Your task to perform on an android device: visit the assistant section in the google photos Image 0: 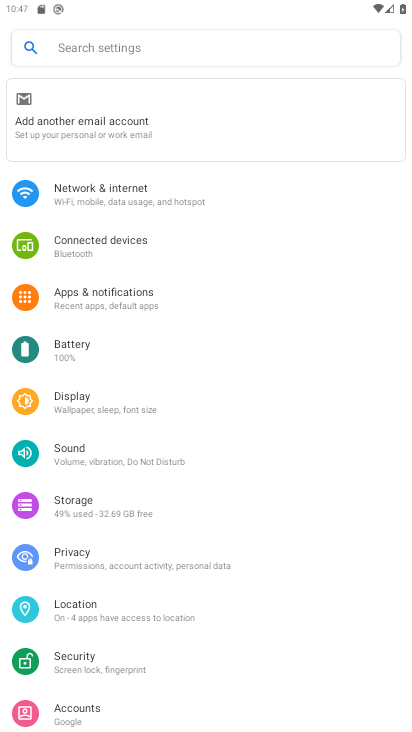
Step 0: press home button
Your task to perform on an android device: visit the assistant section in the google photos Image 1: 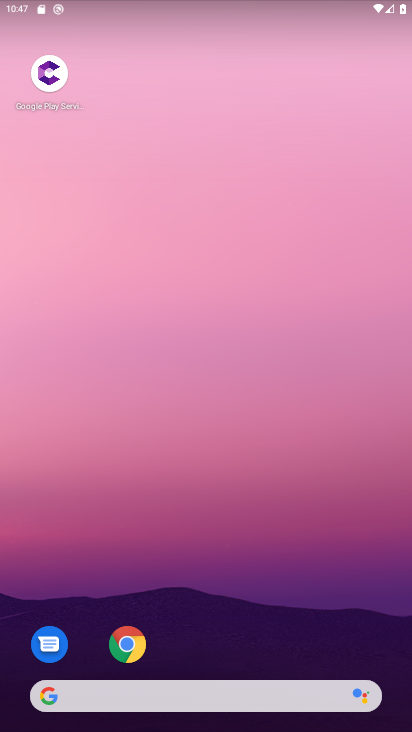
Step 1: drag from (263, 599) to (265, 86)
Your task to perform on an android device: visit the assistant section in the google photos Image 2: 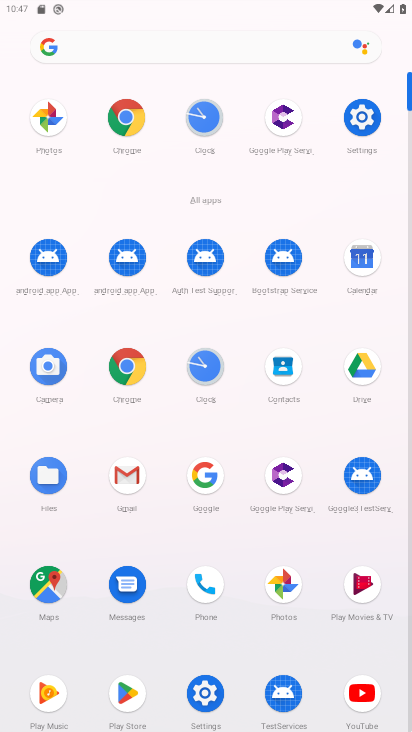
Step 2: click (294, 581)
Your task to perform on an android device: visit the assistant section in the google photos Image 3: 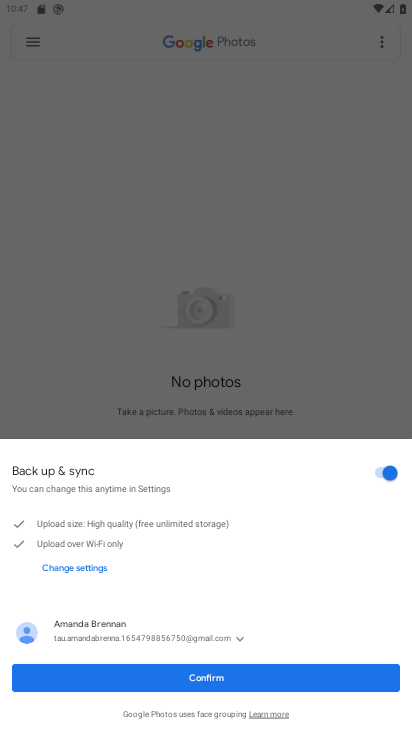
Step 3: click (247, 671)
Your task to perform on an android device: visit the assistant section in the google photos Image 4: 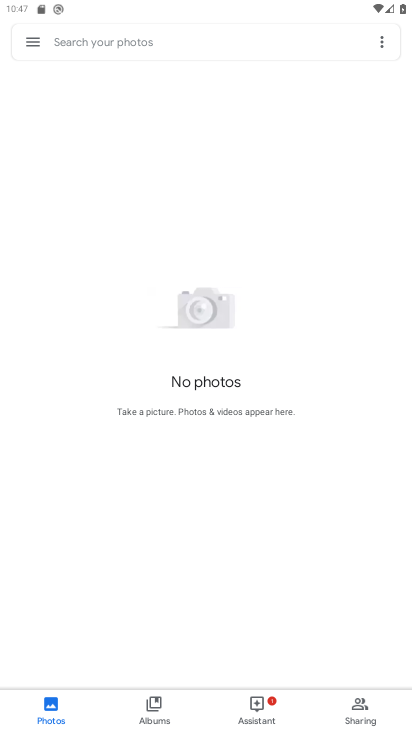
Step 4: click (241, 706)
Your task to perform on an android device: visit the assistant section in the google photos Image 5: 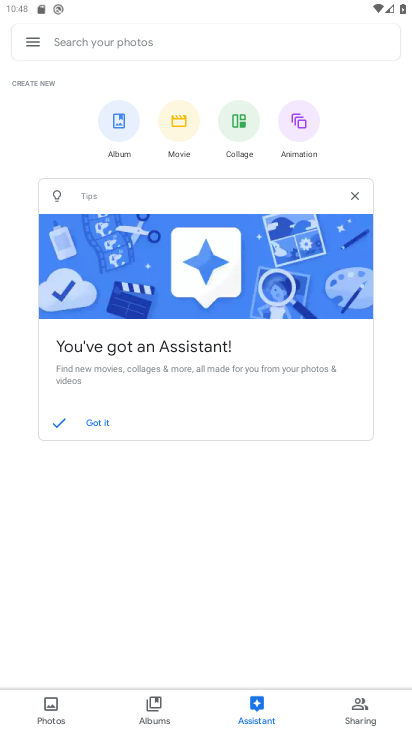
Step 5: task complete